Your task to perform on an android device: Do I have any events today? Image 0: 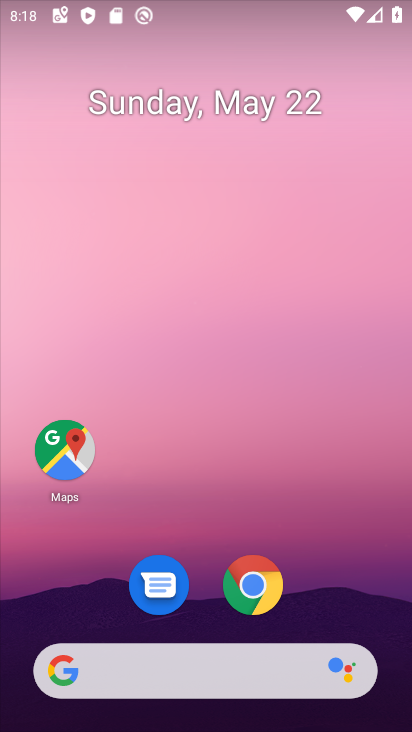
Step 0: drag from (250, 464) to (199, 4)
Your task to perform on an android device: Do I have any events today? Image 1: 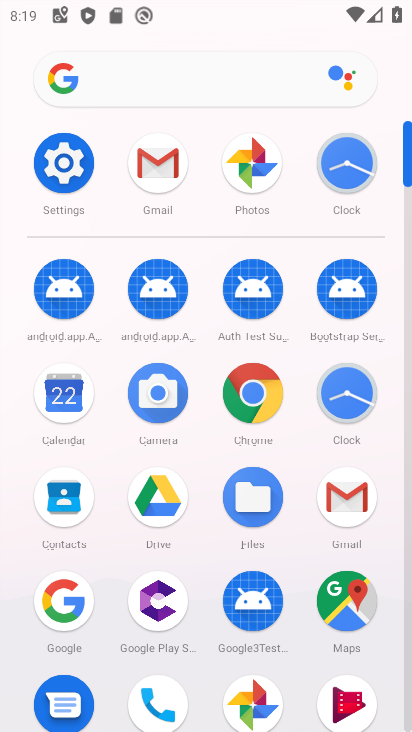
Step 1: click (69, 382)
Your task to perform on an android device: Do I have any events today? Image 2: 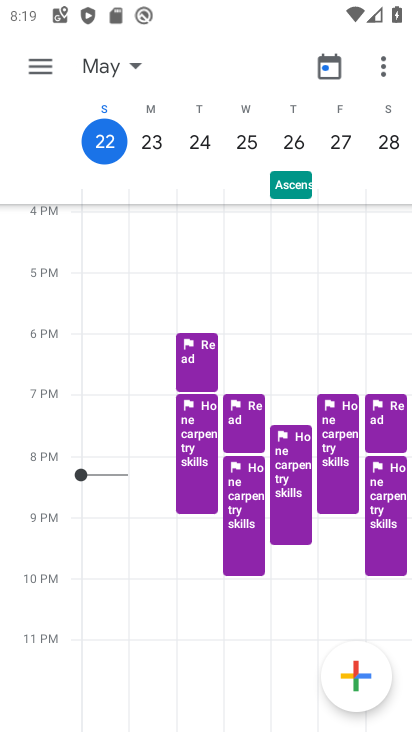
Step 2: task complete